Your task to perform on an android device: Search for Italian restaurants on Maps Image 0: 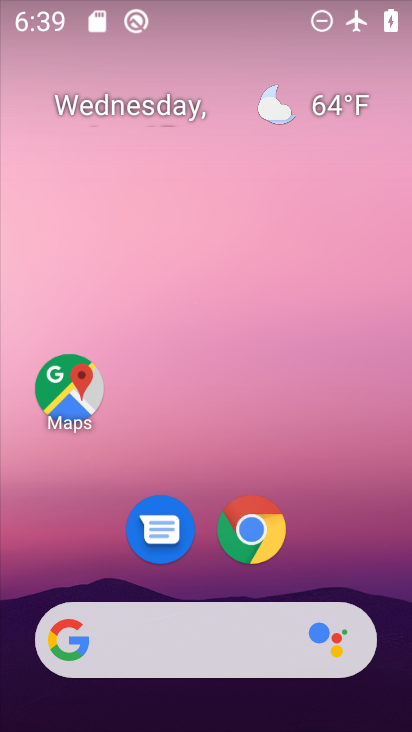
Step 0: drag from (201, 562) to (273, 64)
Your task to perform on an android device: Search for Italian restaurants on Maps Image 1: 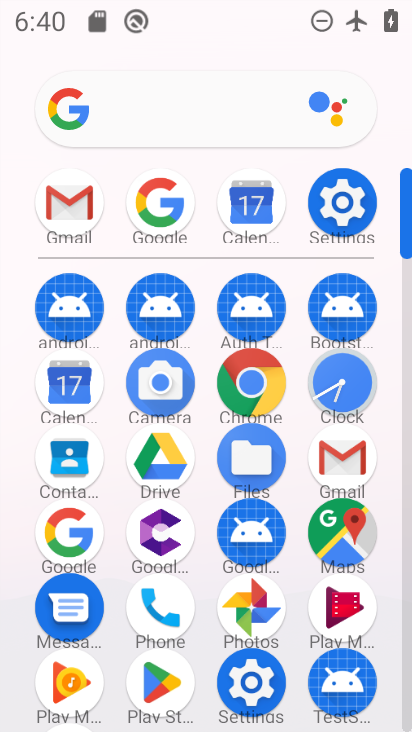
Step 1: click (335, 524)
Your task to perform on an android device: Search for Italian restaurants on Maps Image 2: 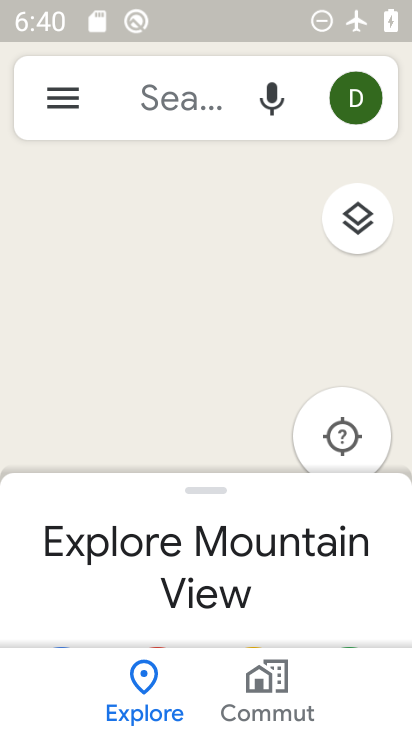
Step 2: click (196, 101)
Your task to perform on an android device: Search for Italian restaurants on Maps Image 3: 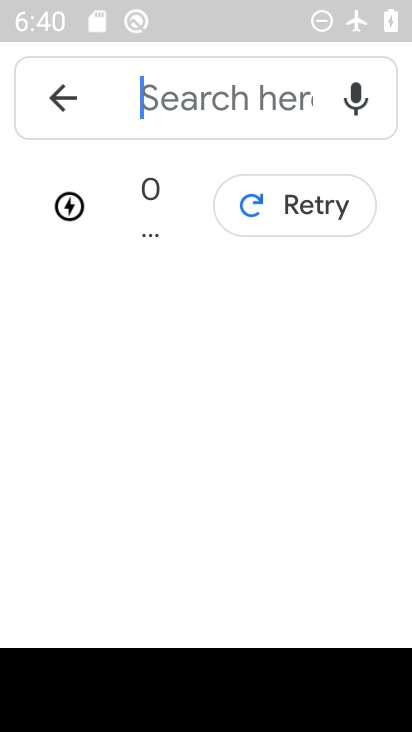
Step 3: task complete